Your task to perform on an android device: turn off location history Image 0: 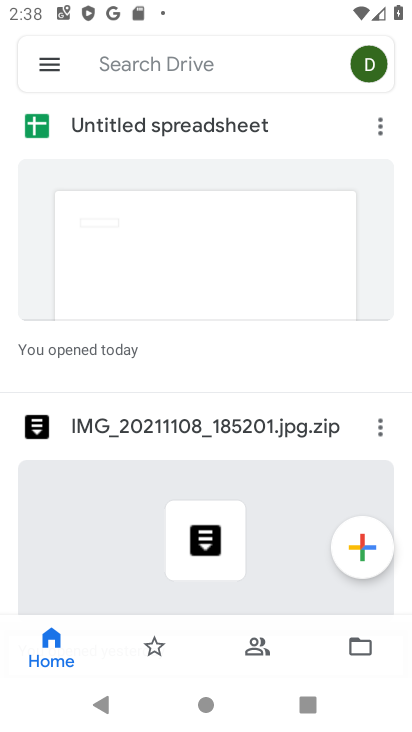
Step 0: press home button
Your task to perform on an android device: turn off location history Image 1: 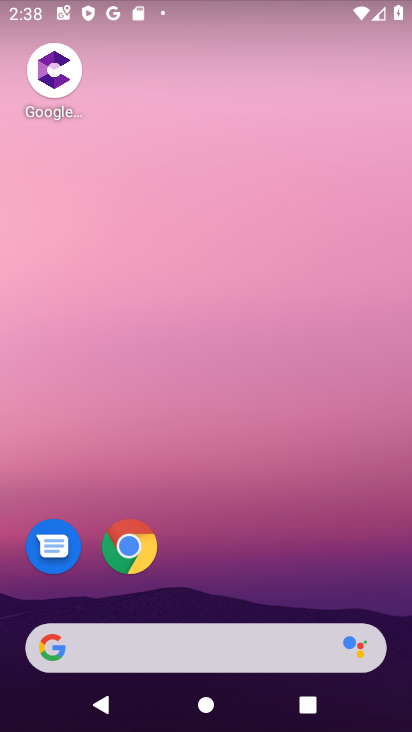
Step 1: click (356, 291)
Your task to perform on an android device: turn off location history Image 2: 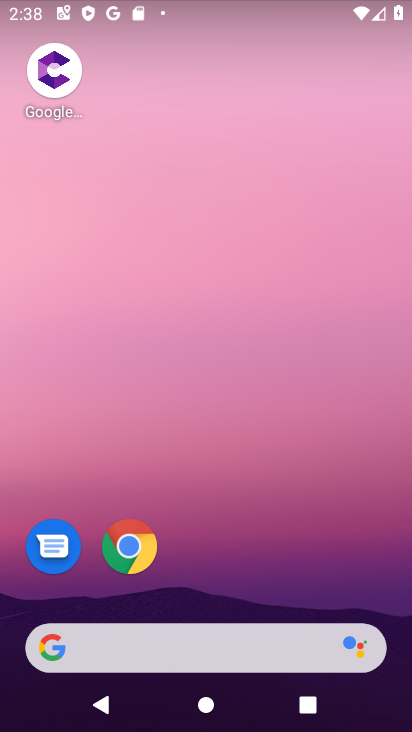
Step 2: drag from (391, 522) to (406, 306)
Your task to perform on an android device: turn off location history Image 3: 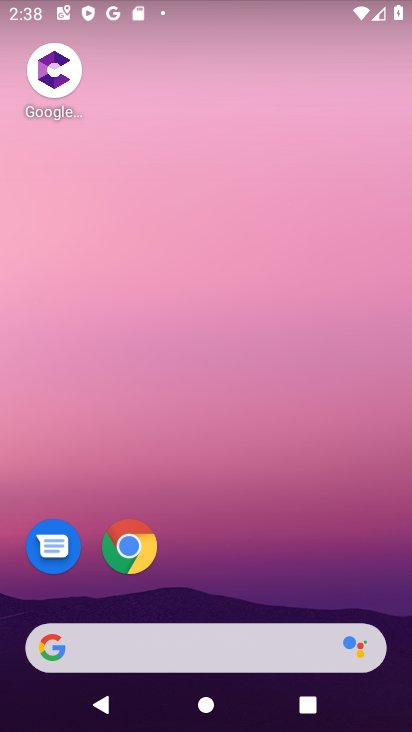
Step 3: drag from (406, 382) to (385, 161)
Your task to perform on an android device: turn off location history Image 4: 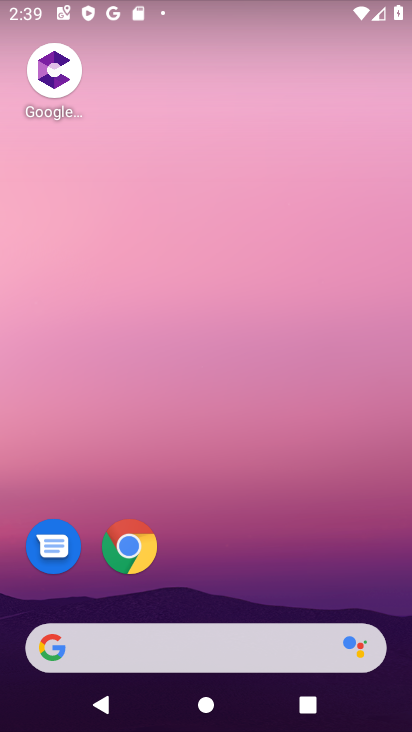
Step 4: drag from (395, 670) to (389, 181)
Your task to perform on an android device: turn off location history Image 5: 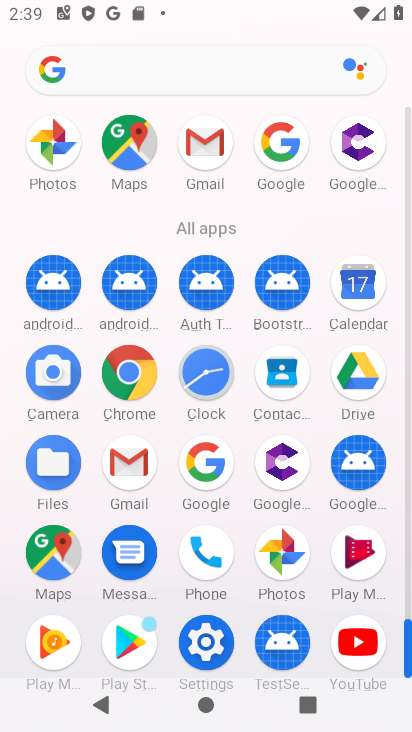
Step 5: click (209, 644)
Your task to perform on an android device: turn off location history Image 6: 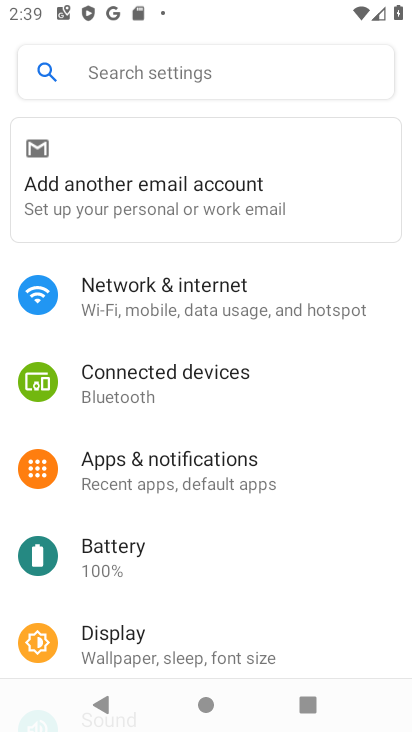
Step 6: drag from (306, 625) to (283, 353)
Your task to perform on an android device: turn off location history Image 7: 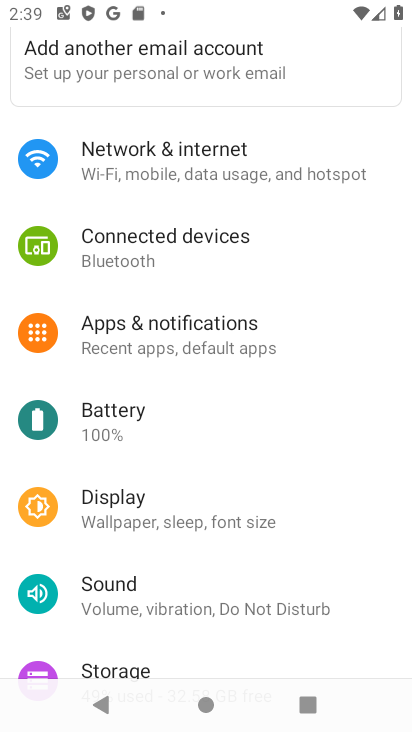
Step 7: drag from (279, 648) to (268, 435)
Your task to perform on an android device: turn off location history Image 8: 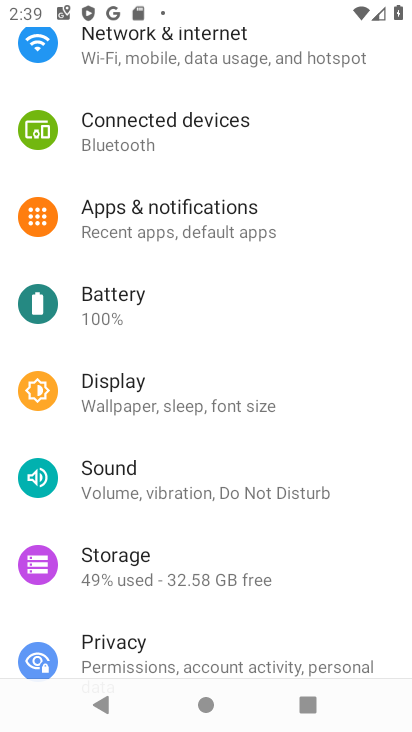
Step 8: drag from (251, 642) to (262, 420)
Your task to perform on an android device: turn off location history Image 9: 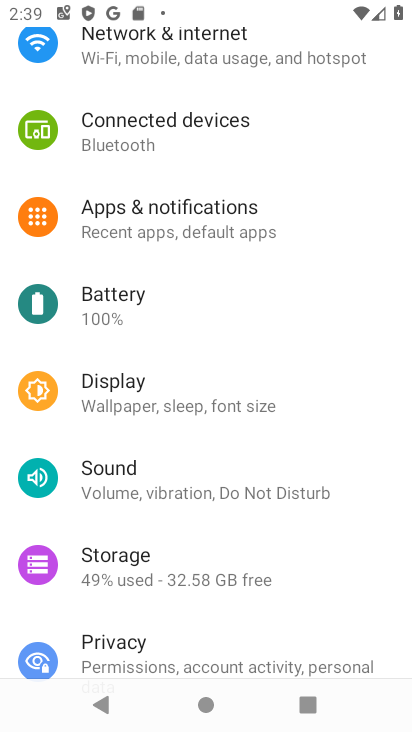
Step 9: drag from (364, 615) to (368, 345)
Your task to perform on an android device: turn off location history Image 10: 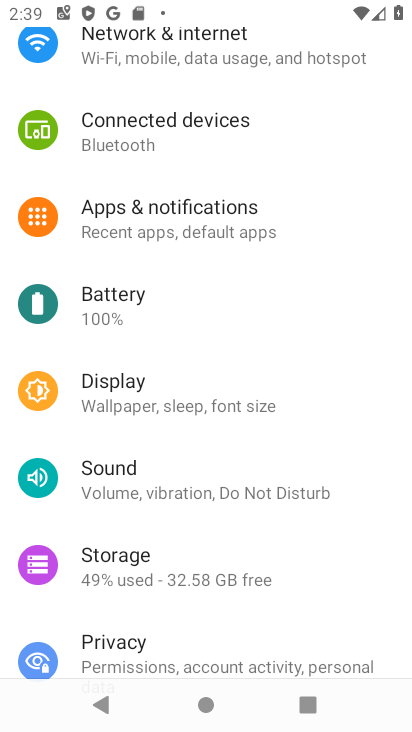
Step 10: drag from (368, 616) to (328, 322)
Your task to perform on an android device: turn off location history Image 11: 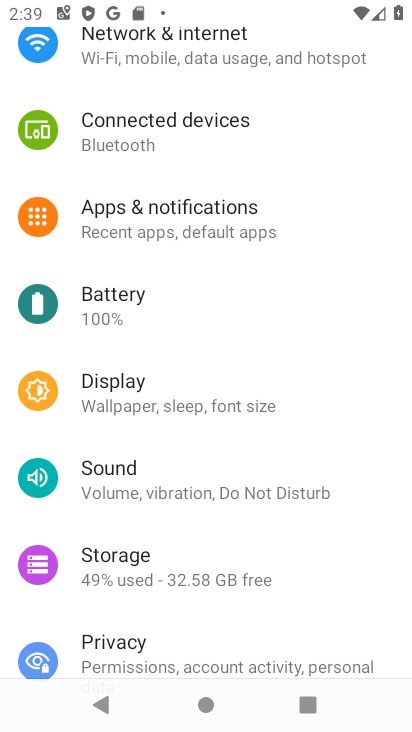
Step 11: drag from (364, 578) to (374, 342)
Your task to perform on an android device: turn off location history Image 12: 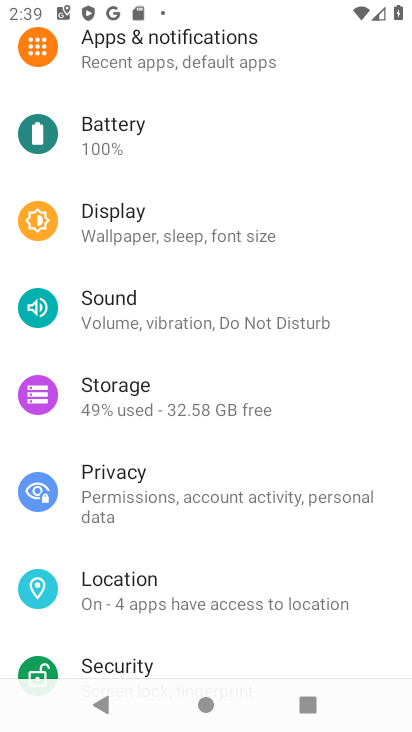
Step 12: click (104, 596)
Your task to perform on an android device: turn off location history Image 13: 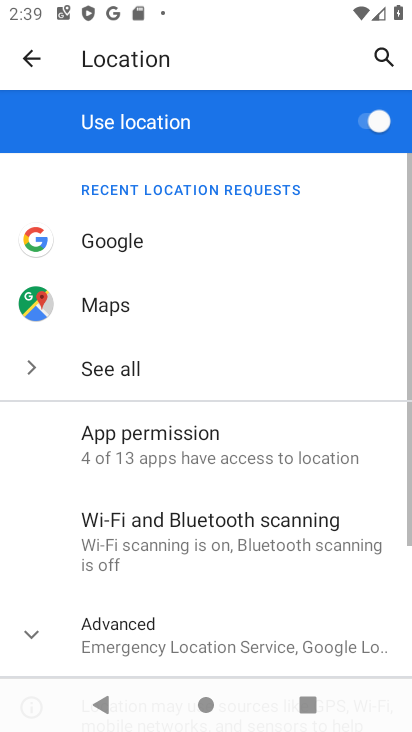
Step 13: drag from (290, 606) to (307, 358)
Your task to perform on an android device: turn off location history Image 14: 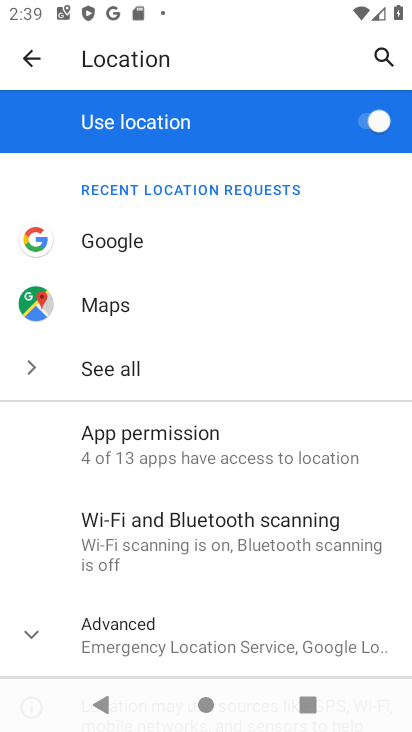
Step 14: drag from (327, 609) to (351, 389)
Your task to perform on an android device: turn off location history Image 15: 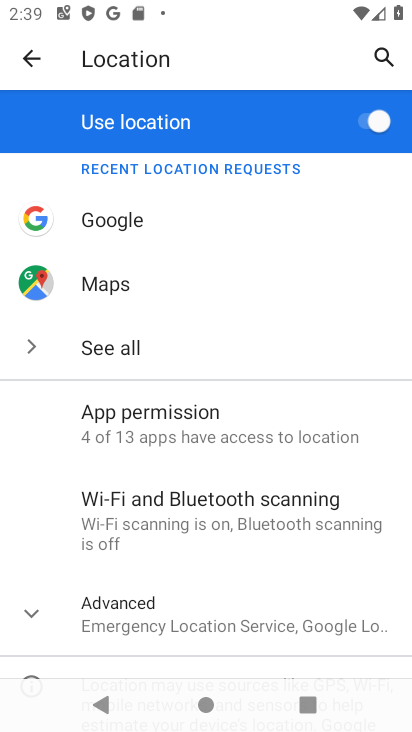
Step 15: drag from (263, 588) to (240, 362)
Your task to perform on an android device: turn off location history Image 16: 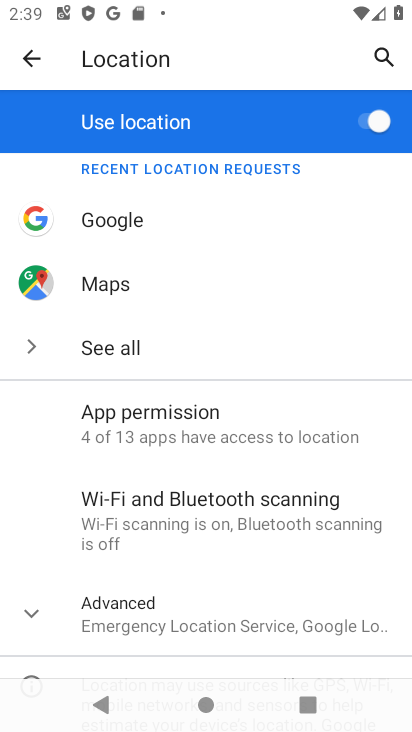
Step 16: click (41, 608)
Your task to perform on an android device: turn off location history Image 17: 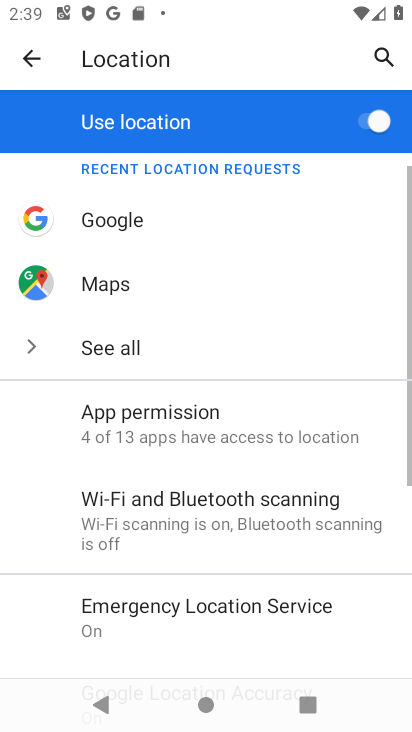
Step 17: drag from (291, 643) to (291, 368)
Your task to perform on an android device: turn off location history Image 18: 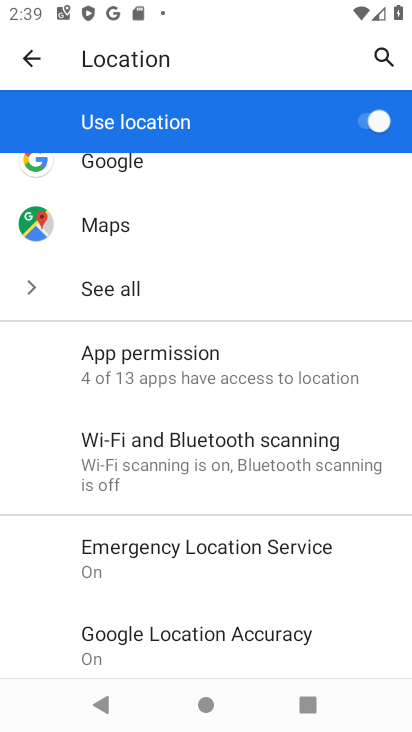
Step 18: drag from (342, 642) to (337, 411)
Your task to perform on an android device: turn off location history Image 19: 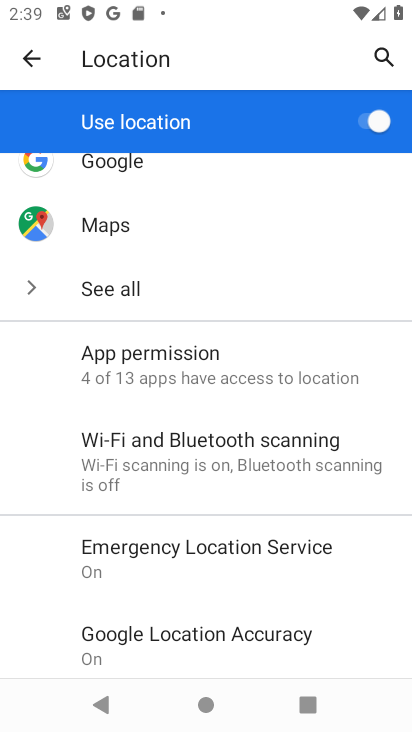
Step 19: click (164, 637)
Your task to perform on an android device: turn off location history Image 20: 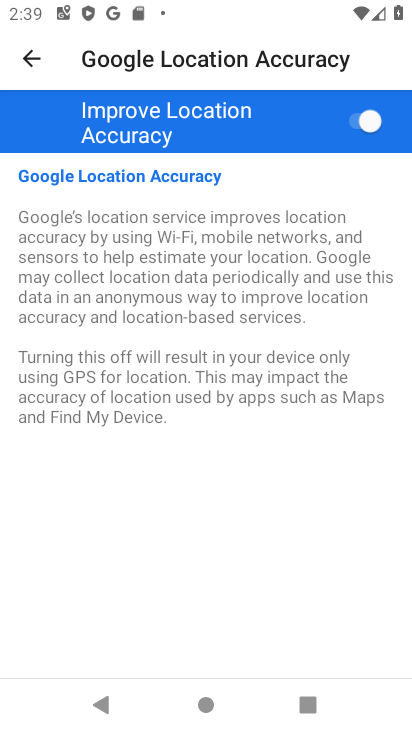
Step 20: click (356, 121)
Your task to perform on an android device: turn off location history Image 21: 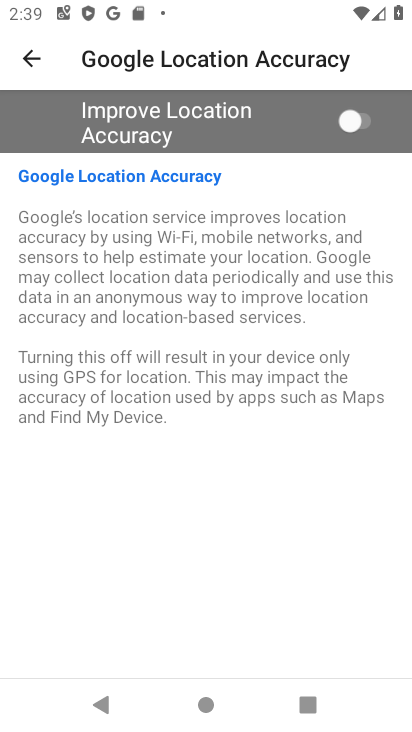
Step 21: task complete